Your task to perform on an android device: Search for vegetarian restaurants on Maps Image 0: 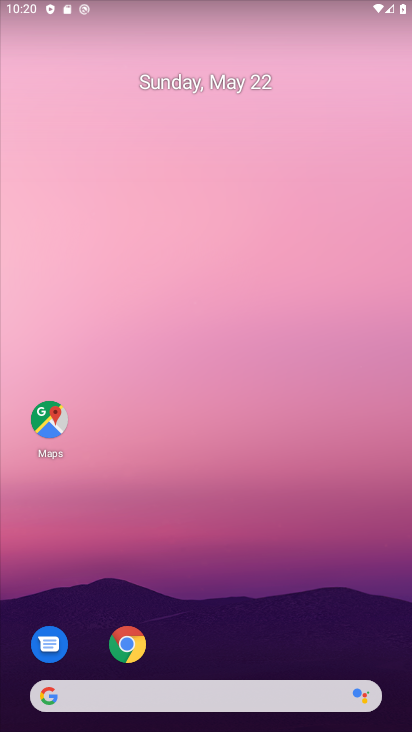
Step 0: drag from (160, 659) to (191, 412)
Your task to perform on an android device: Search for vegetarian restaurants on Maps Image 1: 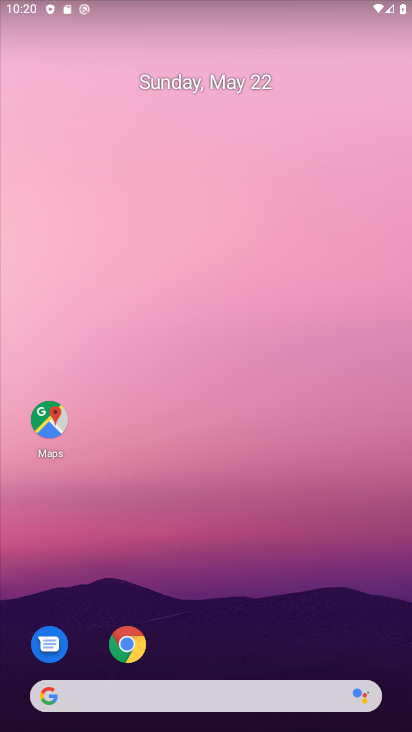
Step 1: click (52, 416)
Your task to perform on an android device: Search for vegetarian restaurants on Maps Image 2: 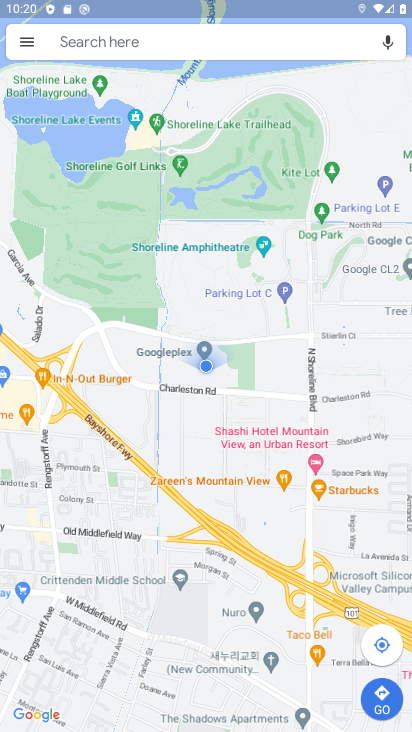
Step 2: click (128, 44)
Your task to perform on an android device: Search for vegetarian restaurants on Maps Image 3: 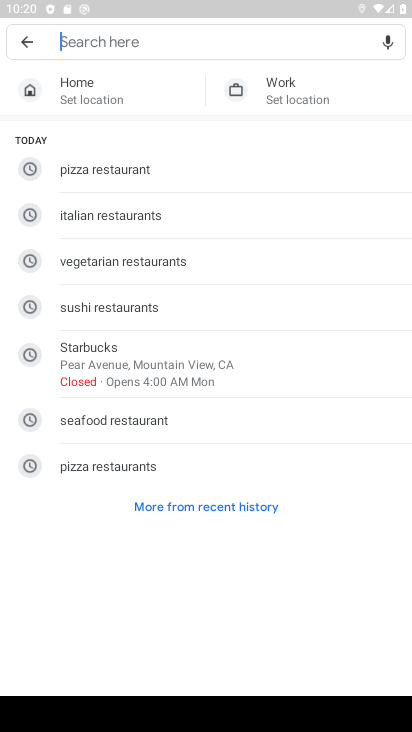
Step 3: click (123, 263)
Your task to perform on an android device: Search for vegetarian restaurants on Maps Image 4: 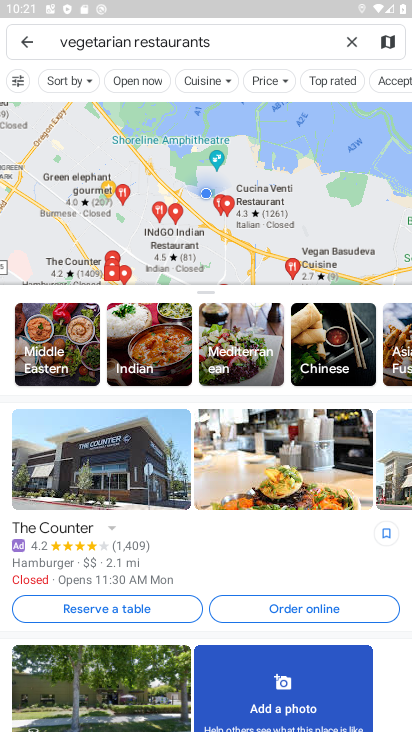
Step 4: task complete